Your task to perform on an android device: Go to accessibility settings Image 0: 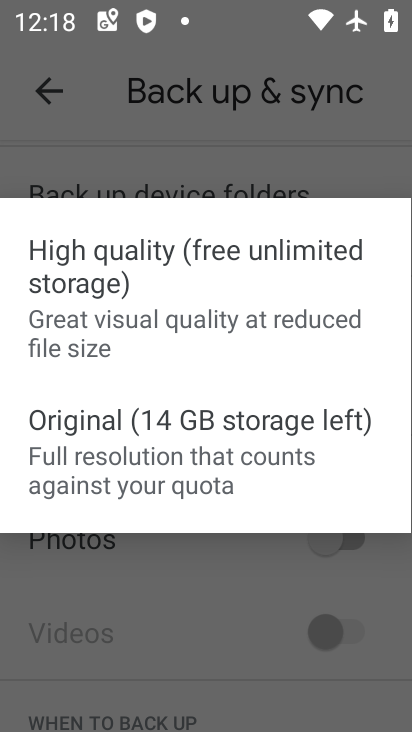
Step 0: press home button
Your task to perform on an android device: Go to accessibility settings Image 1: 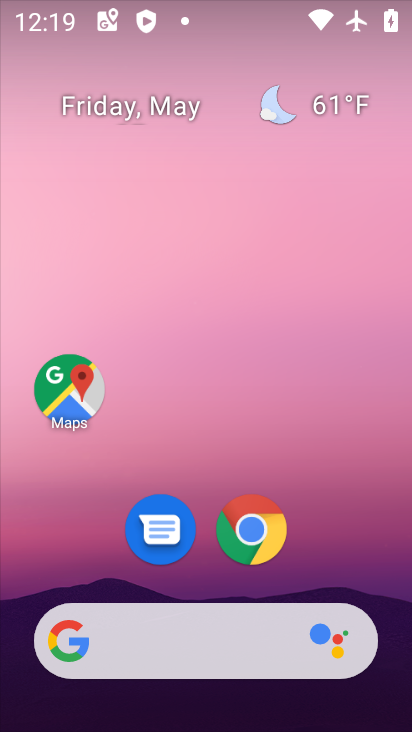
Step 1: drag from (361, 514) to (331, 100)
Your task to perform on an android device: Go to accessibility settings Image 2: 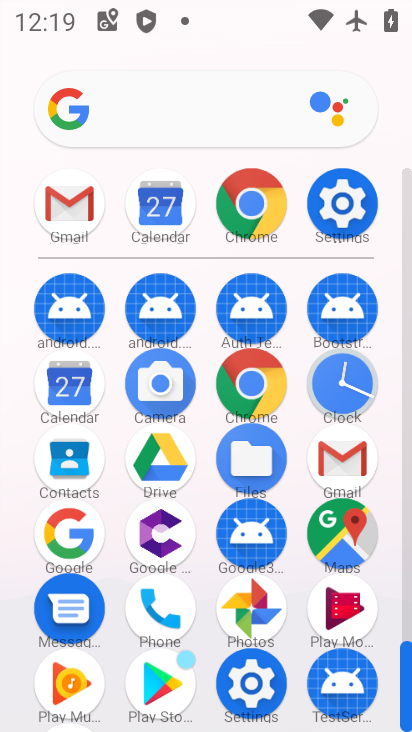
Step 2: click (350, 214)
Your task to perform on an android device: Go to accessibility settings Image 3: 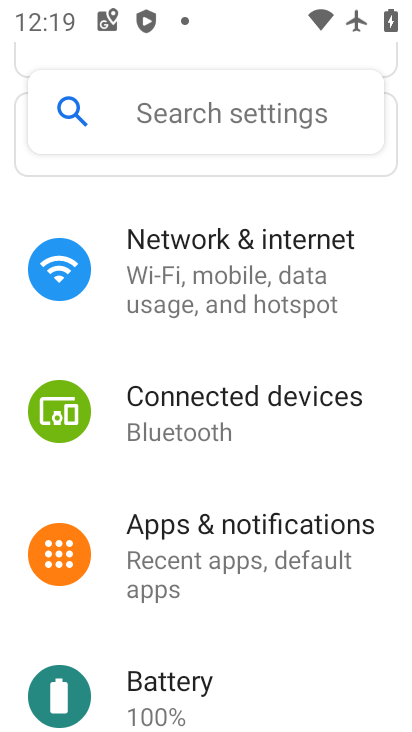
Step 3: drag from (174, 600) to (234, 90)
Your task to perform on an android device: Go to accessibility settings Image 4: 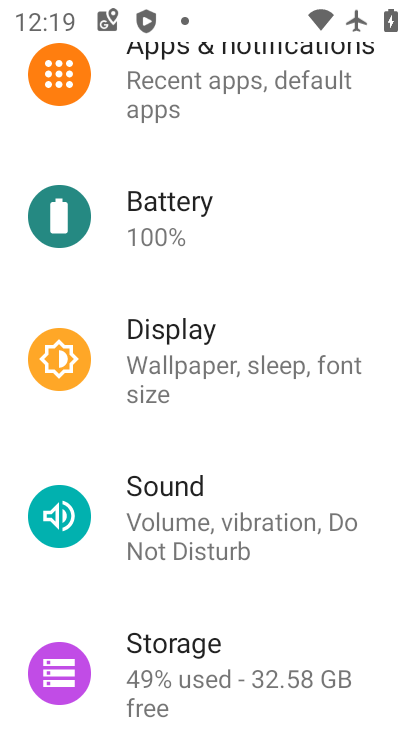
Step 4: drag from (287, 552) to (292, 227)
Your task to perform on an android device: Go to accessibility settings Image 5: 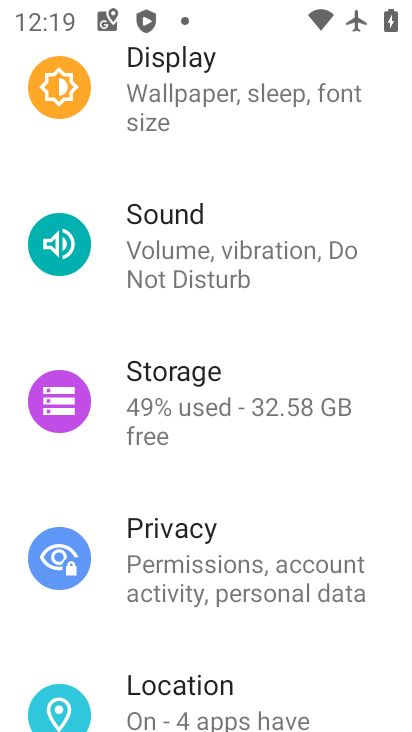
Step 5: drag from (231, 651) to (278, 257)
Your task to perform on an android device: Go to accessibility settings Image 6: 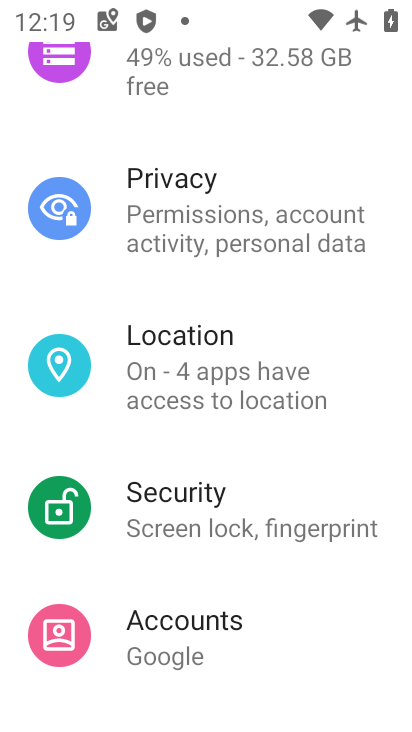
Step 6: drag from (226, 557) to (252, 118)
Your task to perform on an android device: Go to accessibility settings Image 7: 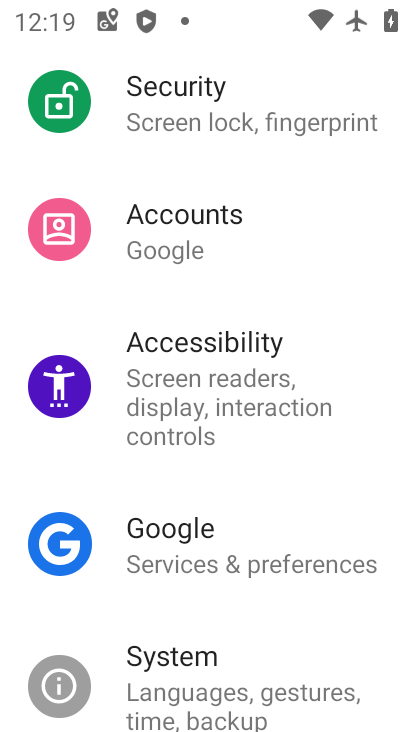
Step 7: click (234, 364)
Your task to perform on an android device: Go to accessibility settings Image 8: 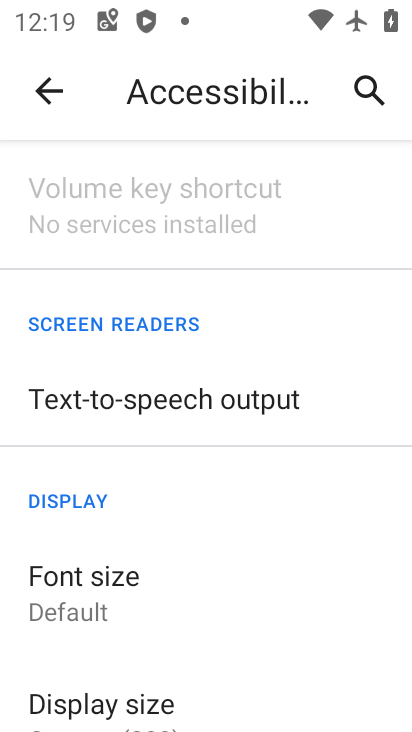
Step 8: task complete